Your task to perform on an android device: change notification settings in the gmail app Image 0: 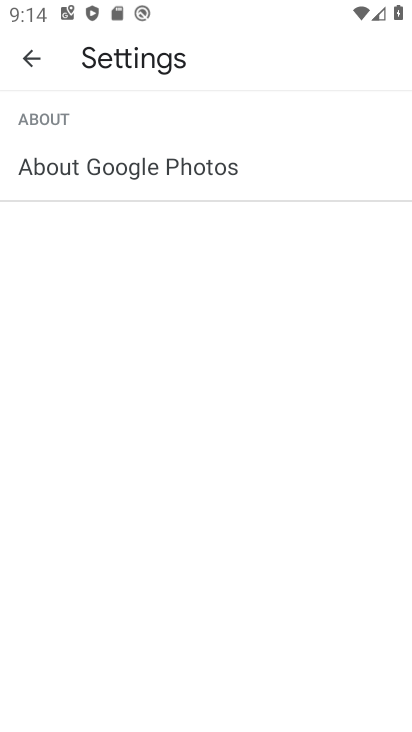
Step 0: press home button
Your task to perform on an android device: change notification settings in the gmail app Image 1: 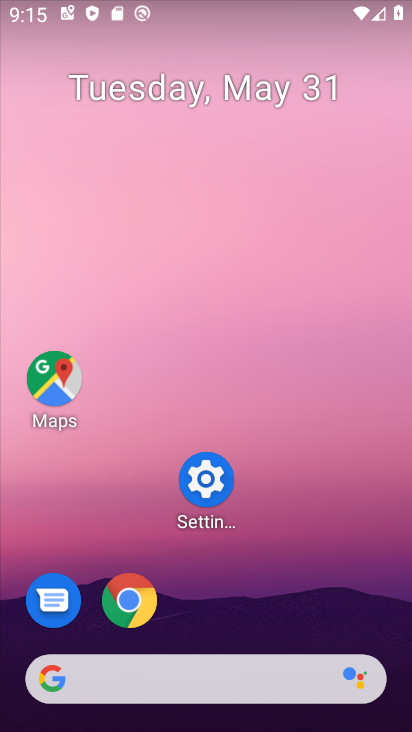
Step 1: drag from (243, 685) to (286, 376)
Your task to perform on an android device: change notification settings in the gmail app Image 2: 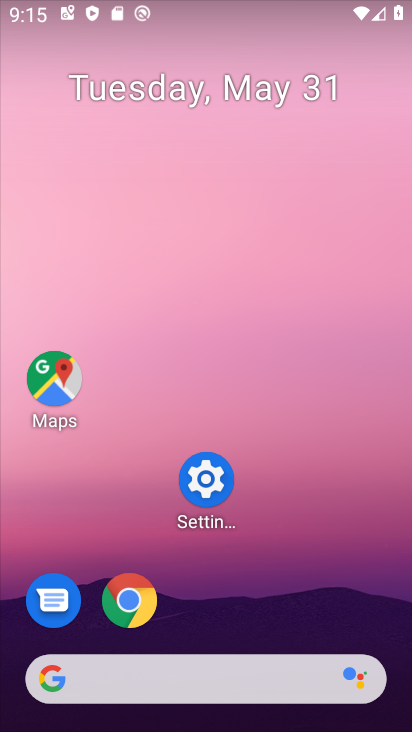
Step 2: drag from (252, 716) to (0, 14)
Your task to perform on an android device: change notification settings in the gmail app Image 3: 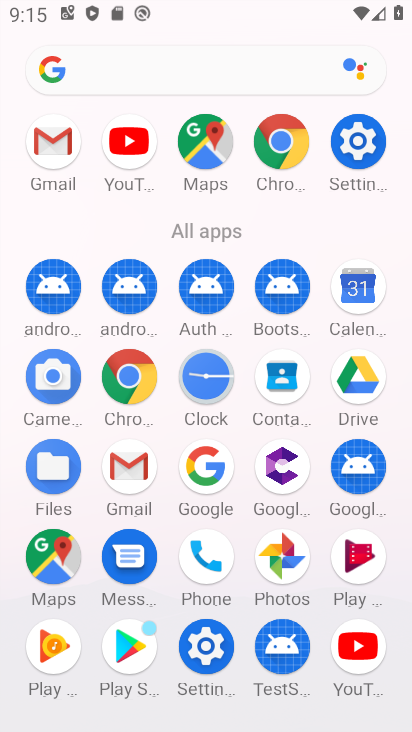
Step 3: click (42, 154)
Your task to perform on an android device: change notification settings in the gmail app Image 4: 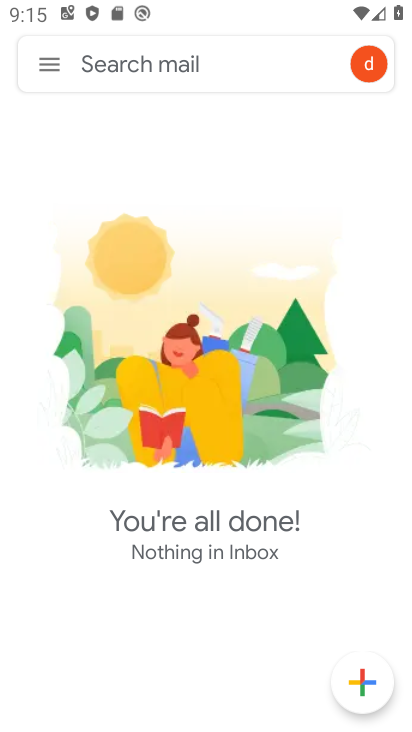
Step 4: click (60, 70)
Your task to perform on an android device: change notification settings in the gmail app Image 5: 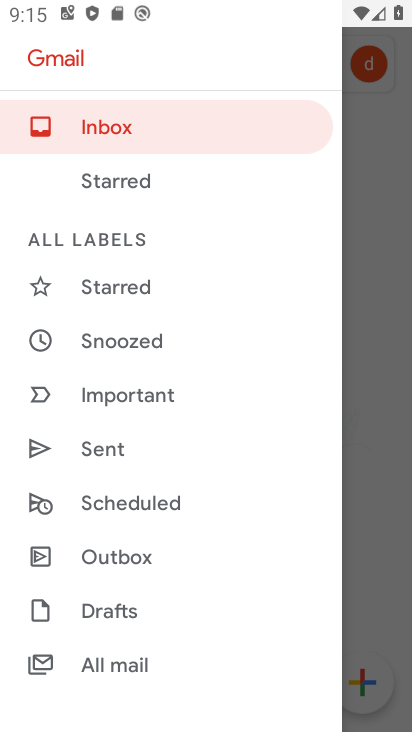
Step 5: drag from (122, 549) to (137, 297)
Your task to perform on an android device: change notification settings in the gmail app Image 6: 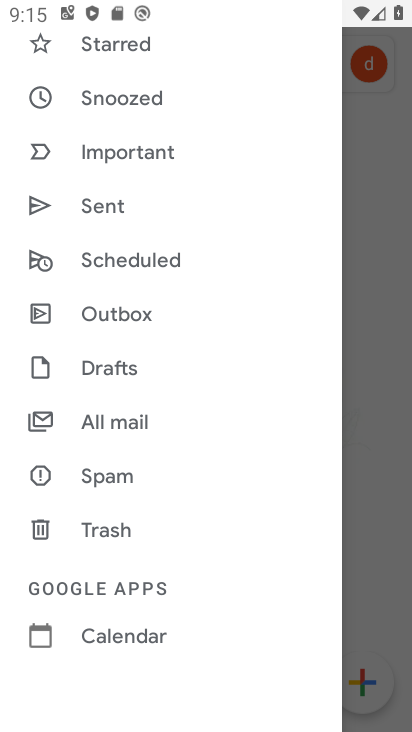
Step 6: drag from (108, 563) to (143, 429)
Your task to perform on an android device: change notification settings in the gmail app Image 7: 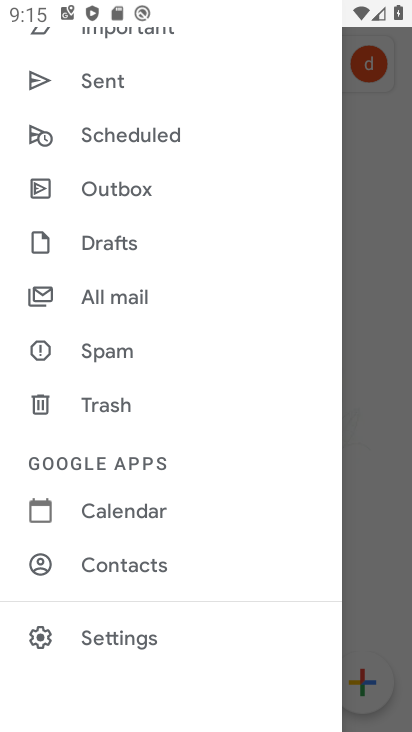
Step 7: click (115, 637)
Your task to perform on an android device: change notification settings in the gmail app Image 8: 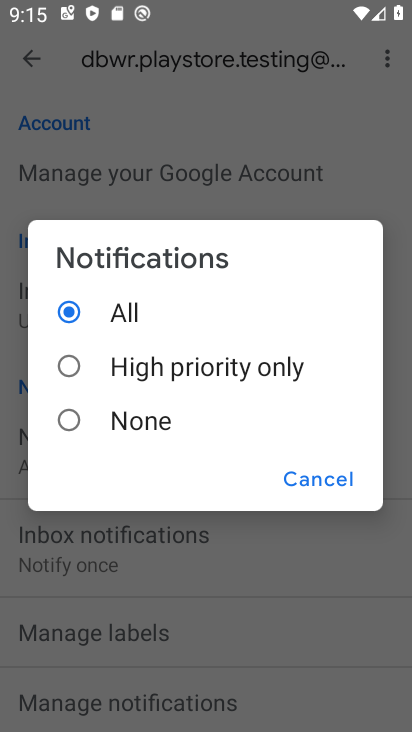
Step 8: click (329, 475)
Your task to perform on an android device: change notification settings in the gmail app Image 9: 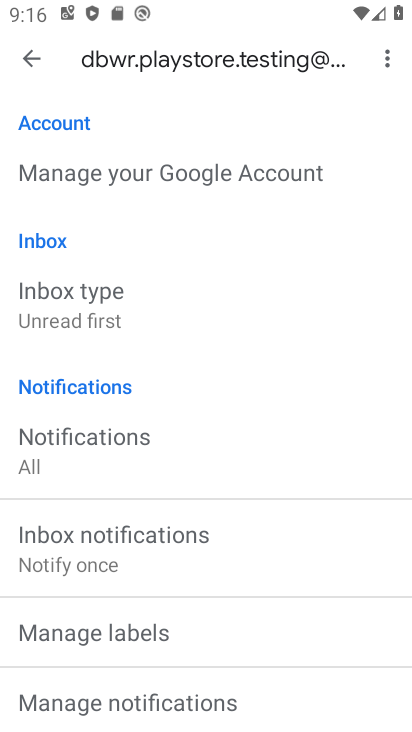
Step 9: click (103, 446)
Your task to perform on an android device: change notification settings in the gmail app Image 10: 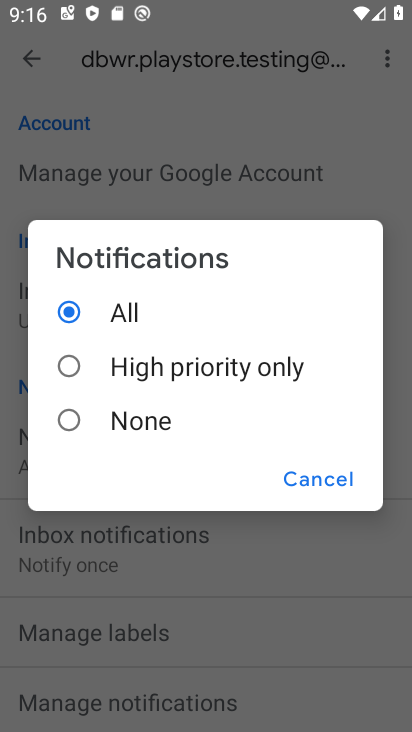
Step 10: click (151, 364)
Your task to perform on an android device: change notification settings in the gmail app Image 11: 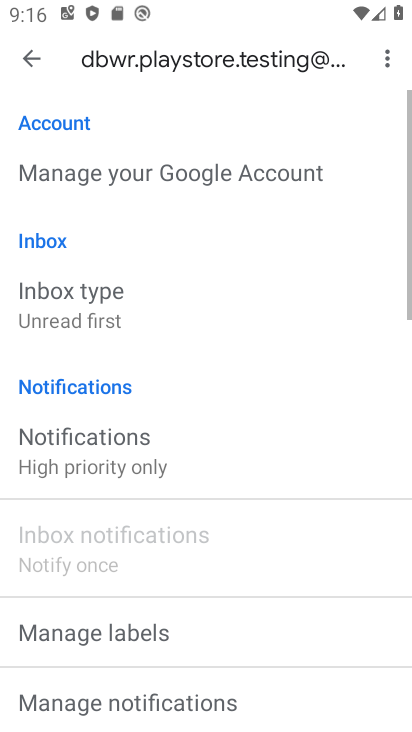
Step 11: task complete